Your task to perform on an android device: add a contact in the contacts app Image 0: 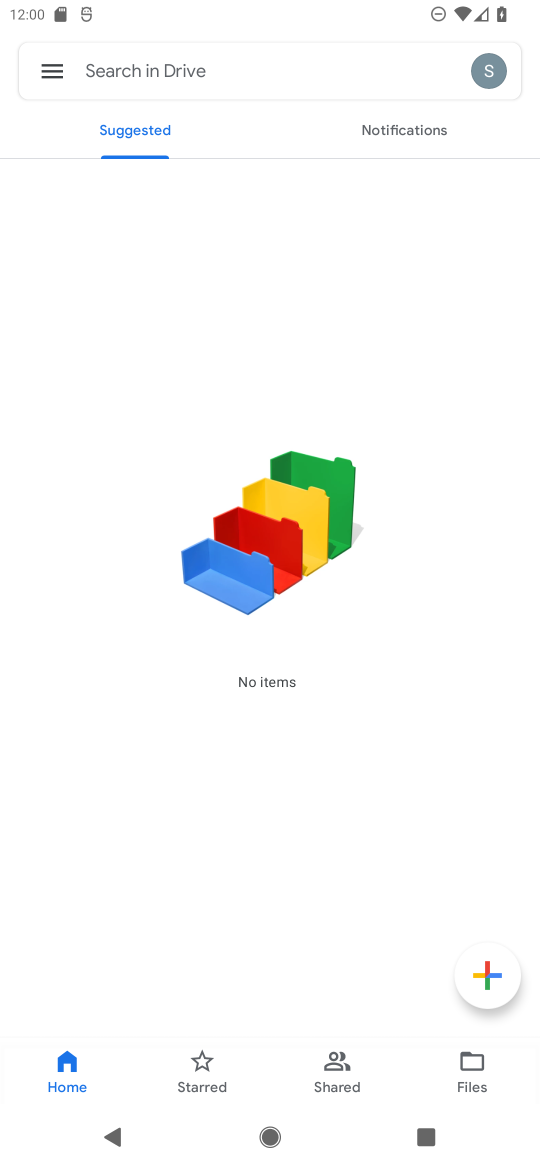
Step 0: press home button
Your task to perform on an android device: add a contact in the contacts app Image 1: 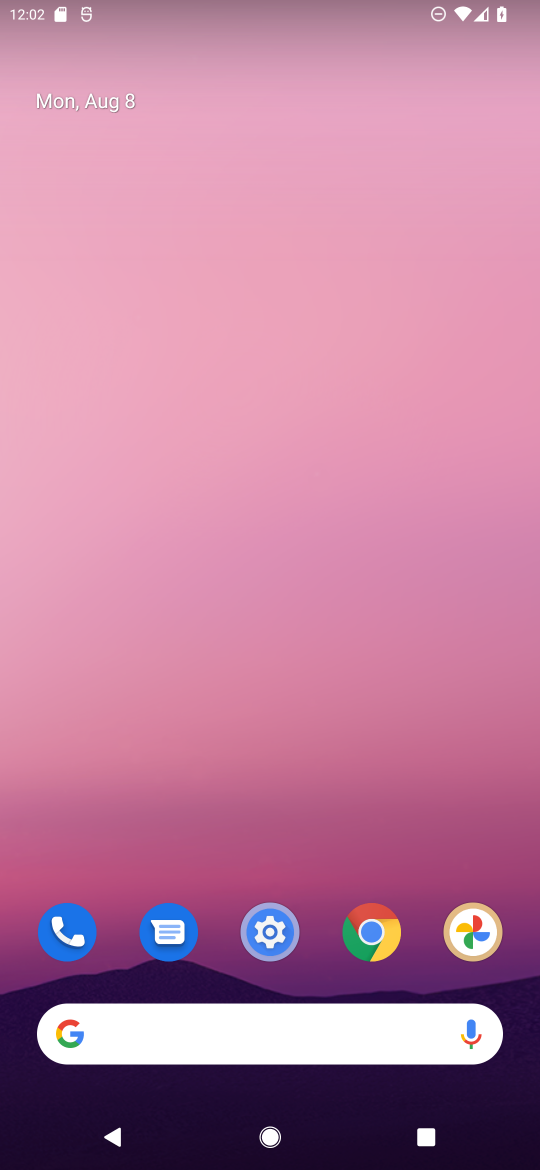
Step 1: click (73, 941)
Your task to perform on an android device: add a contact in the contacts app Image 2: 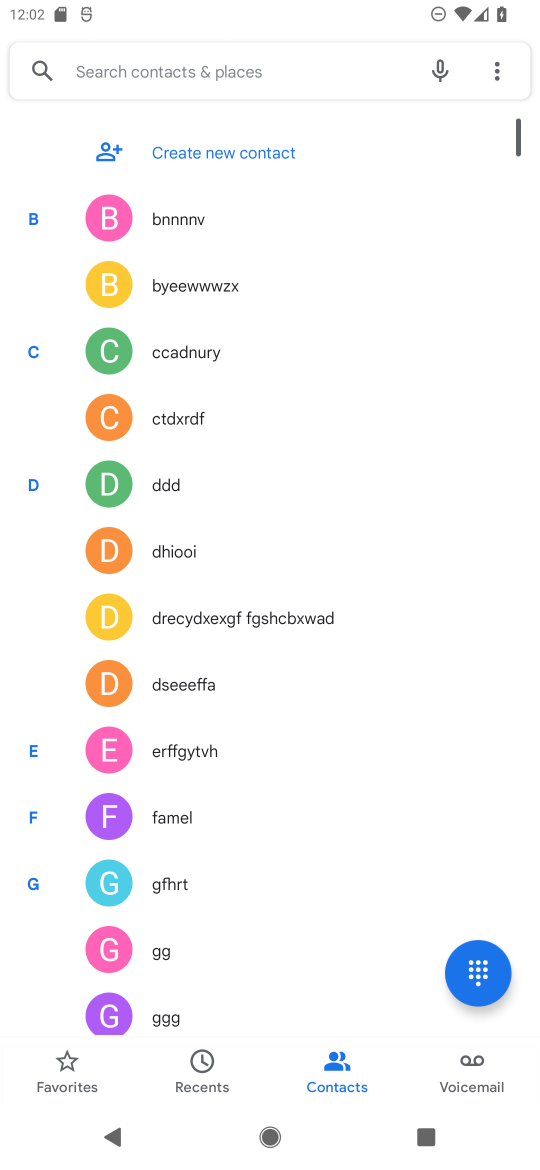
Step 2: click (257, 161)
Your task to perform on an android device: add a contact in the contacts app Image 3: 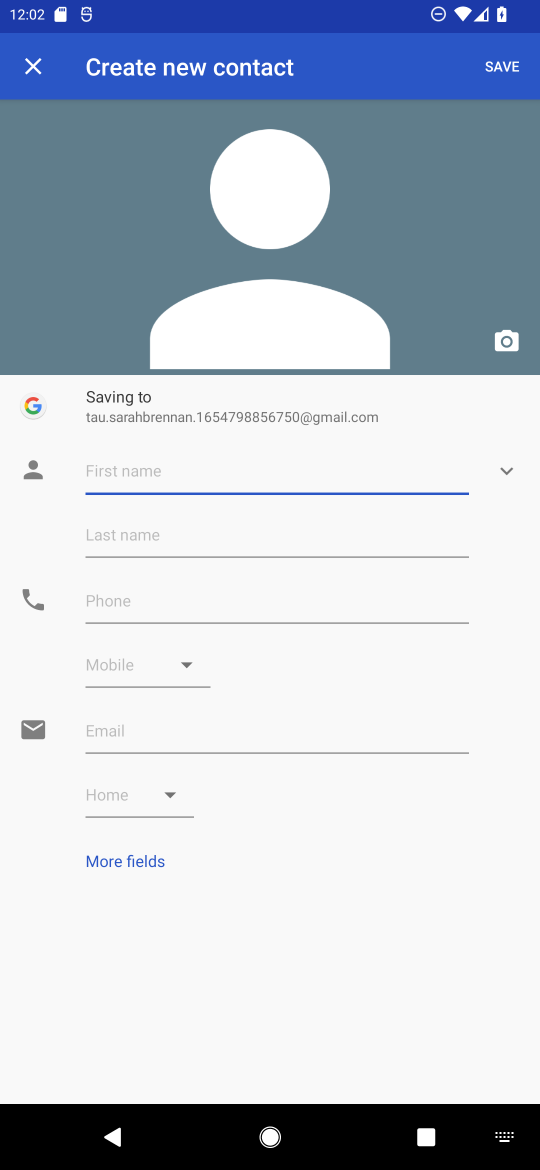
Step 3: click (250, 157)
Your task to perform on an android device: add a contact in the contacts app Image 4: 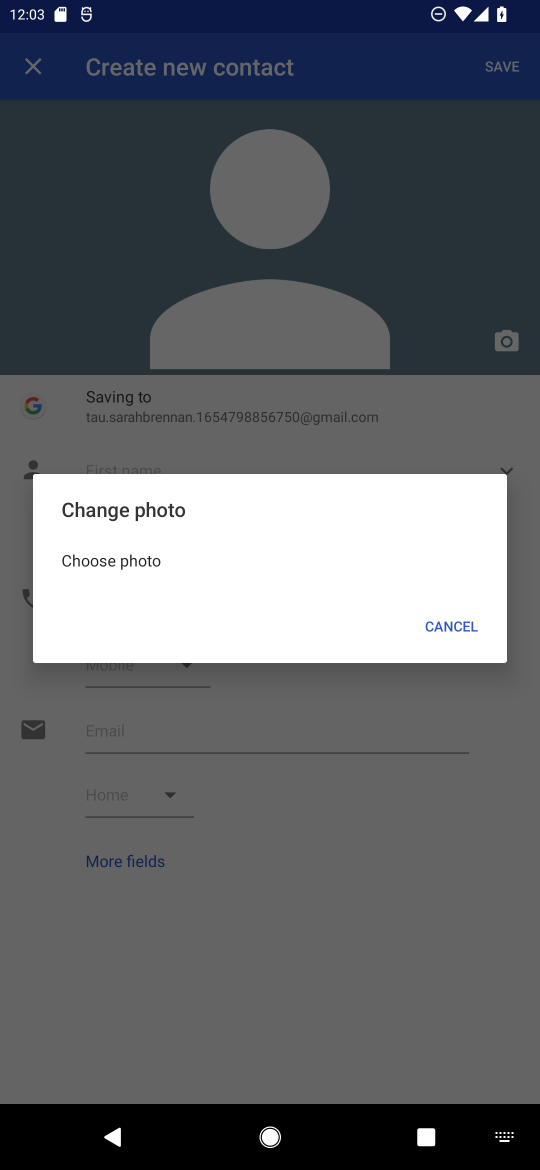
Step 4: click (447, 626)
Your task to perform on an android device: add a contact in the contacts app Image 5: 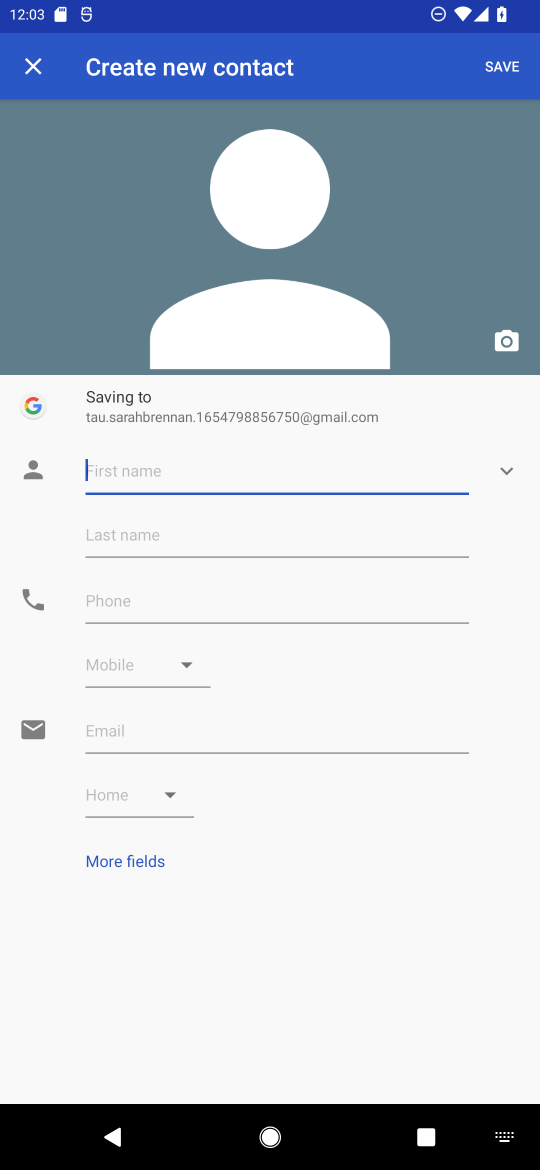
Step 5: type " nbgvfds"
Your task to perform on an android device: add a contact in the contacts app Image 6: 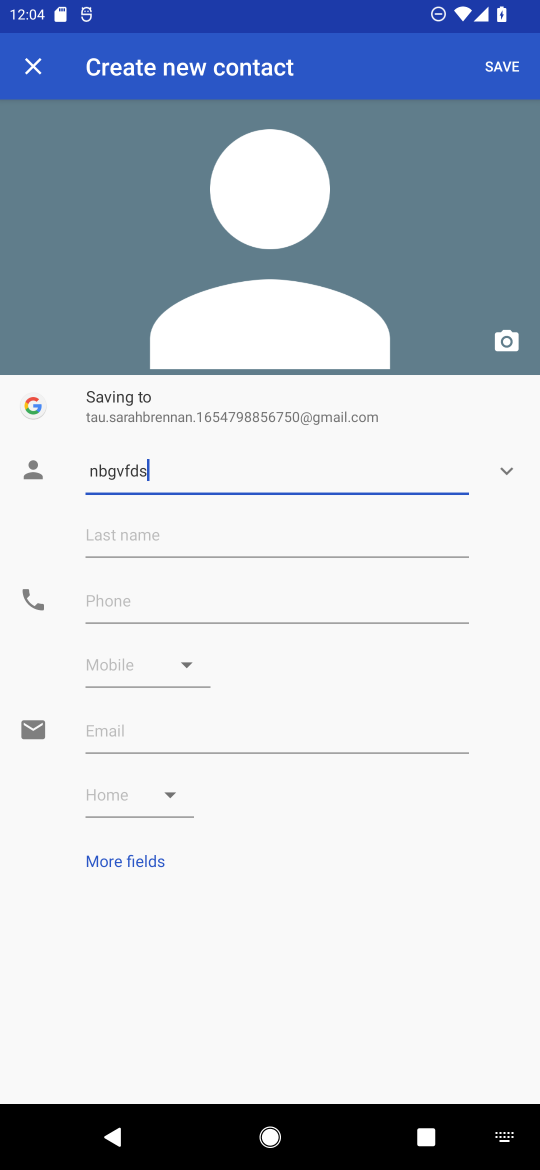
Step 6: click (244, 584)
Your task to perform on an android device: add a contact in the contacts app Image 7: 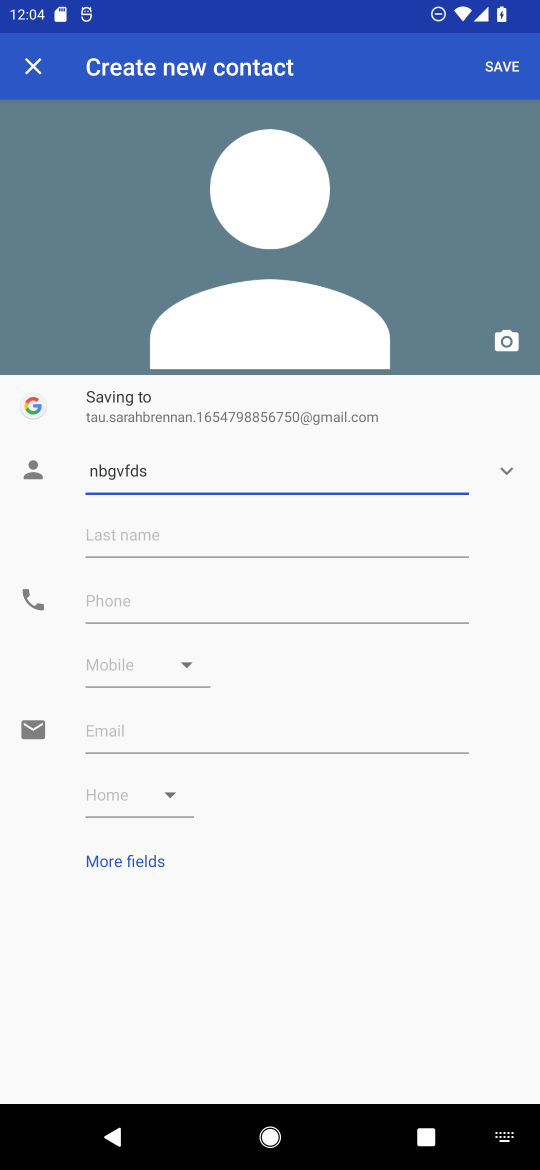
Step 7: type "34567876"
Your task to perform on an android device: add a contact in the contacts app Image 8: 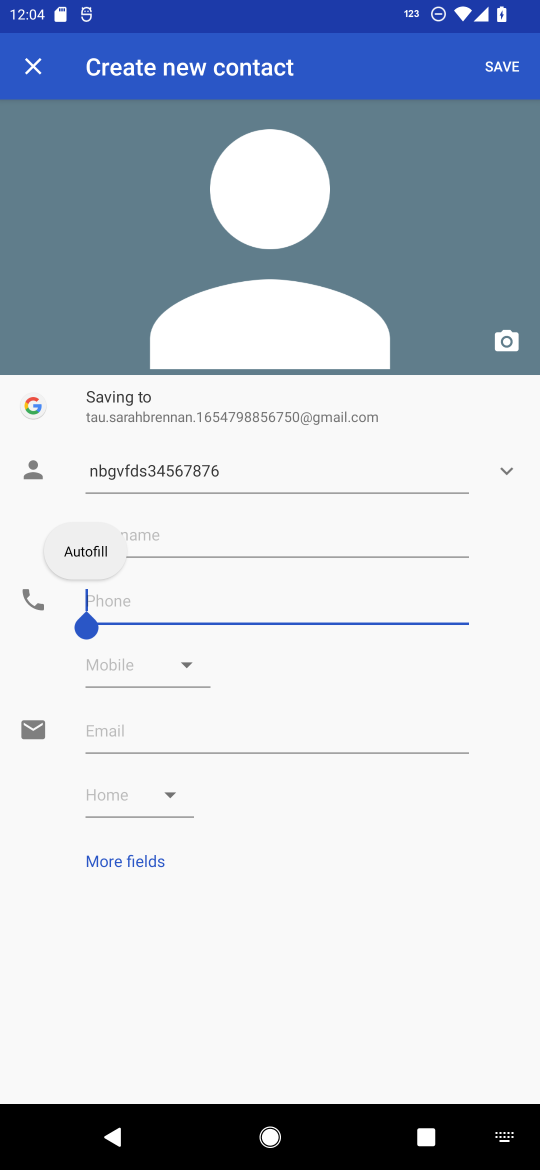
Step 8: click (123, 592)
Your task to perform on an android device: add a contact in the contacts app Image 9: 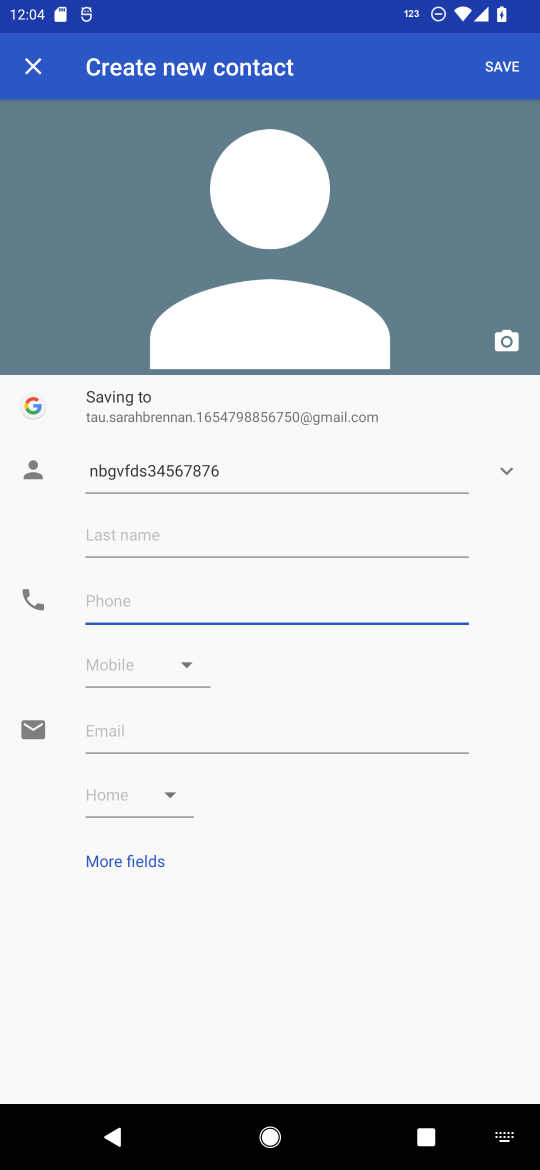
Step 9: type "76543ei8uy7865"
Your task to perform on an android device: add a contact in the contacts app Image 10: 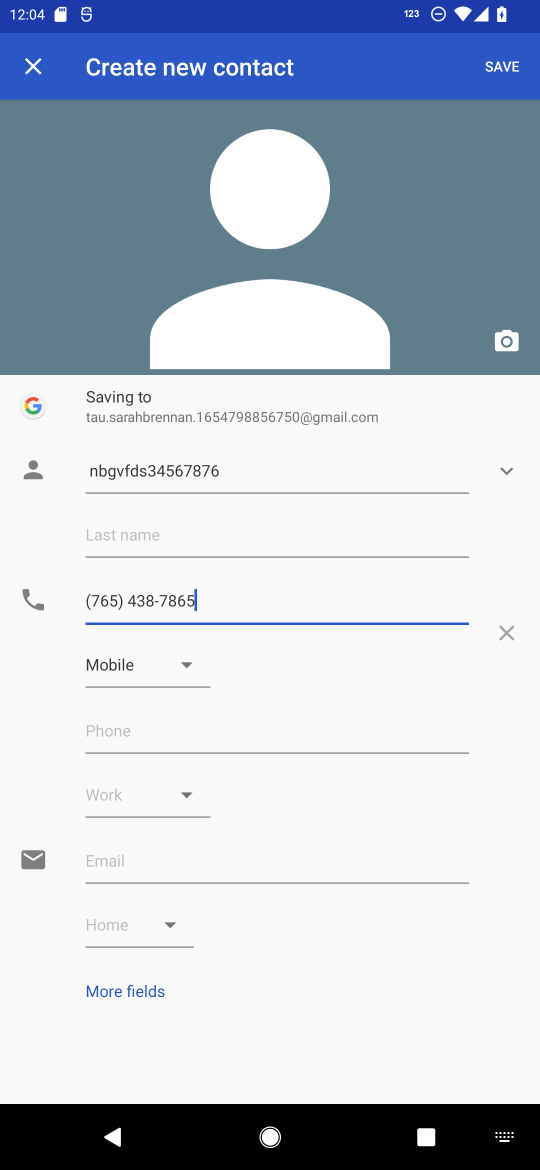
Step 10: click (484, 56)
Your task to perform on an android device: add a contact in the contacts app Image 11: 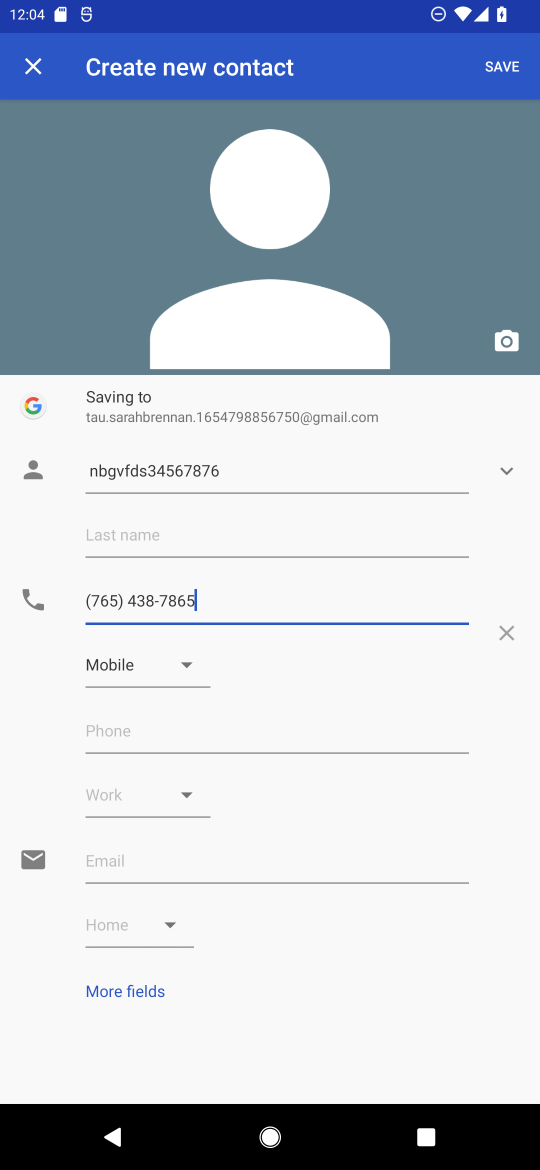
Step 11: task complete